Your task to perform on an android device: turn off location history Image 0: 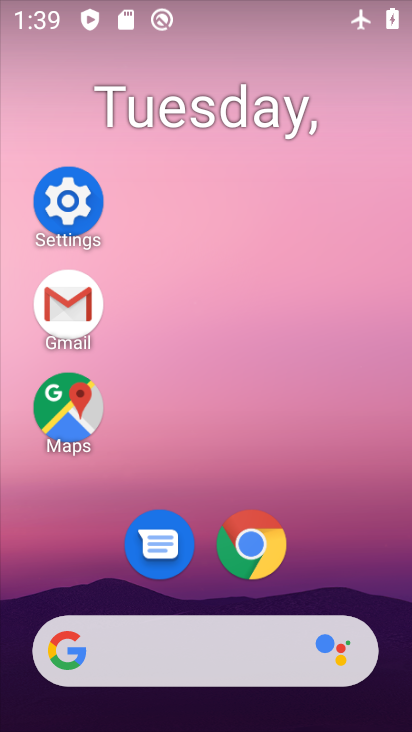
Step 0: click (76, 192)
Your task to perform on an android device: turn off location history Image 1: 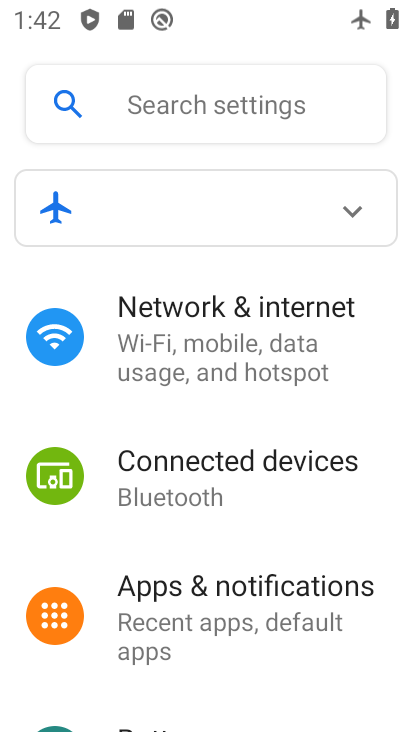
Step 1: drag from (262, 559) to (260, 129)
Your task to perform on an android device: turn off location history Image 2: 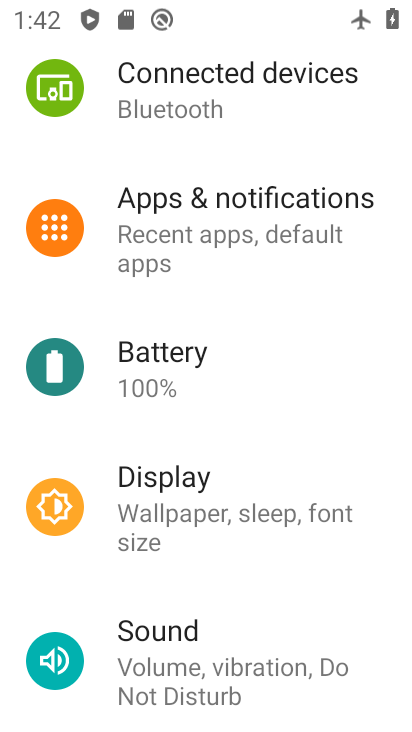
Step 2: drag from (254, 607) to (273, 202)
Your task to perform on an android device: turn off location history Image 3: 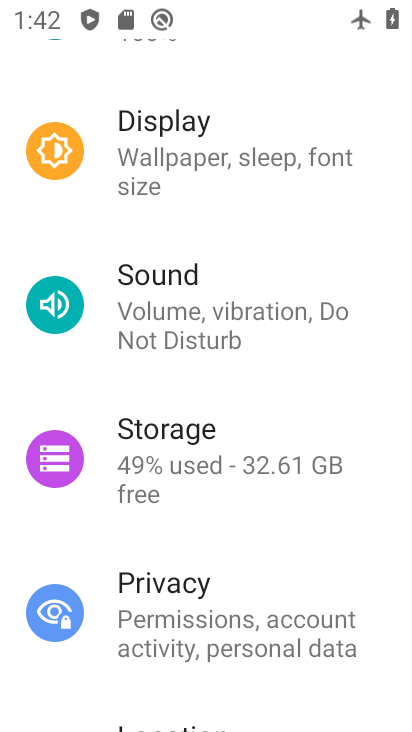
Step 3: drag from (264, 548) to (268, 155)
Your task to perform on an android device: turn off location history Image 4: 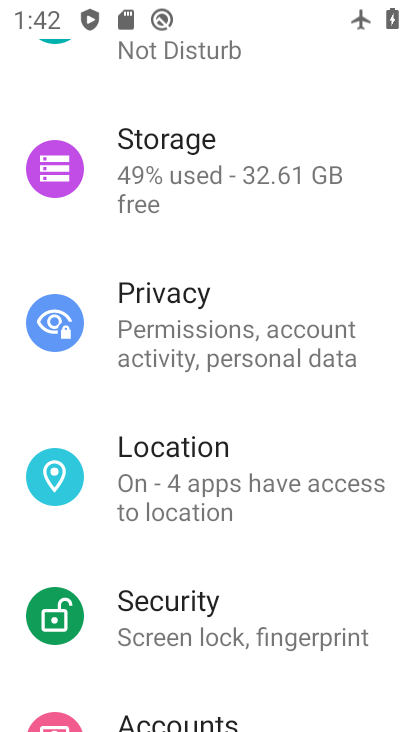
Step 4: click (250, 472)
Your task to perform on an android device: turn off location history Image 5: 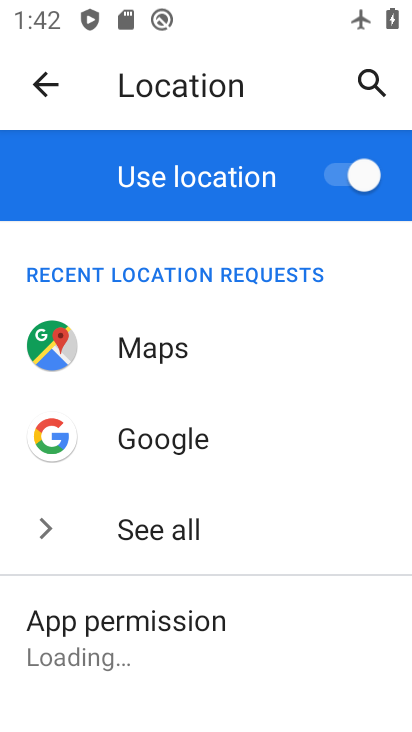
Step 5: drag from (254, 657) to (285, 160)
Your task to perform on an android device: turn off location history Image 6: 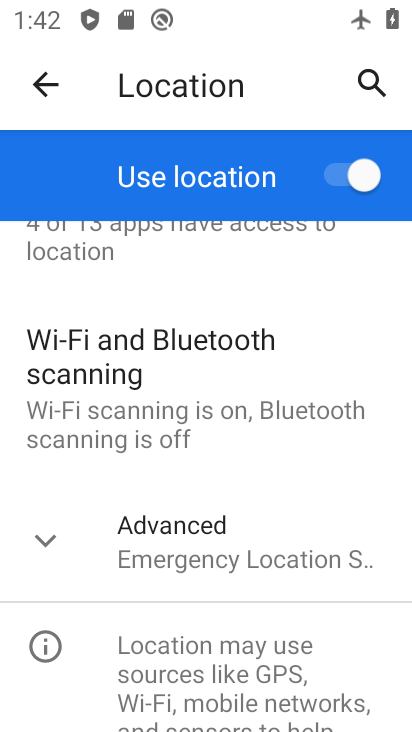
Step 6: click (189, 520)
Your task to perform on an android device: turn off location history Image 7: 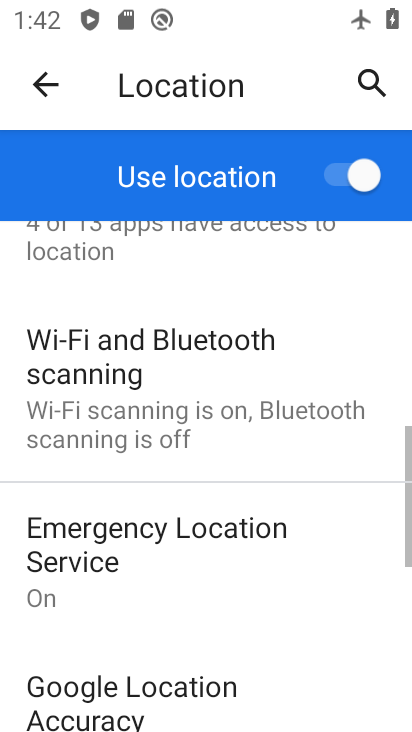
Step 7: drag from (230, 649) to (273, 233)
Your task to perform on an android device: turn off location history Image 8: 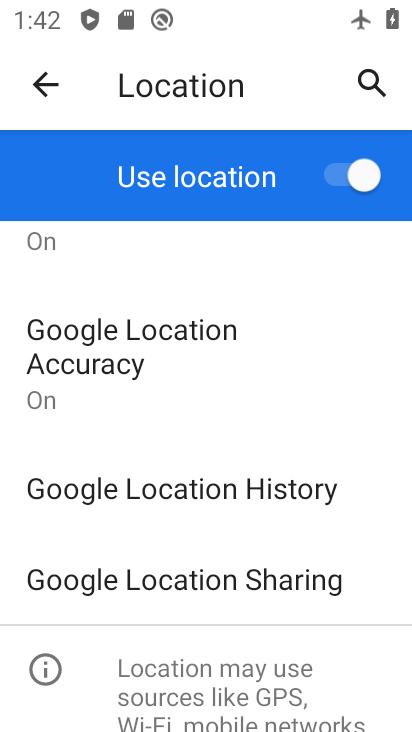
Step 8: click (267, 500)
Your task to perform on an android device: turn off location history Image 9: 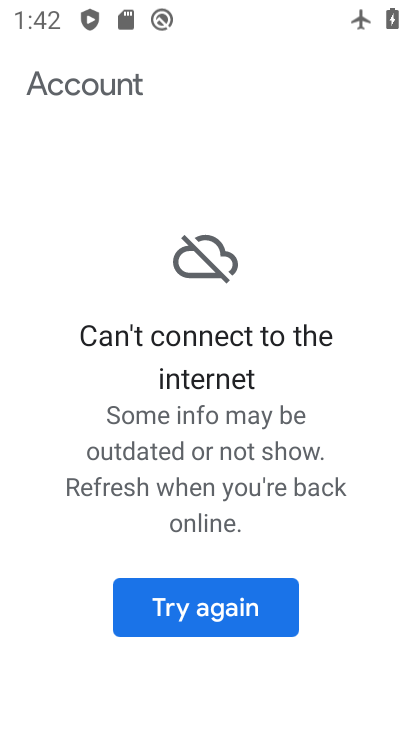
Step 9: task complete